Your task to perform on an android device: Open settings Image 0: 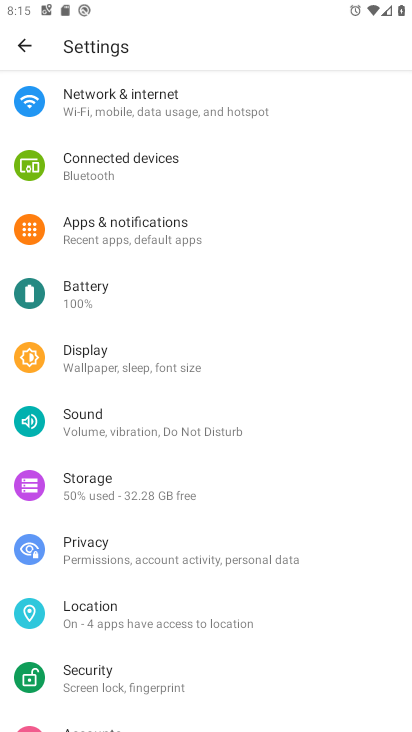
Step 0: task complete